Your task to perform on an android device: Go to calendar. Show me events next week Image 0: 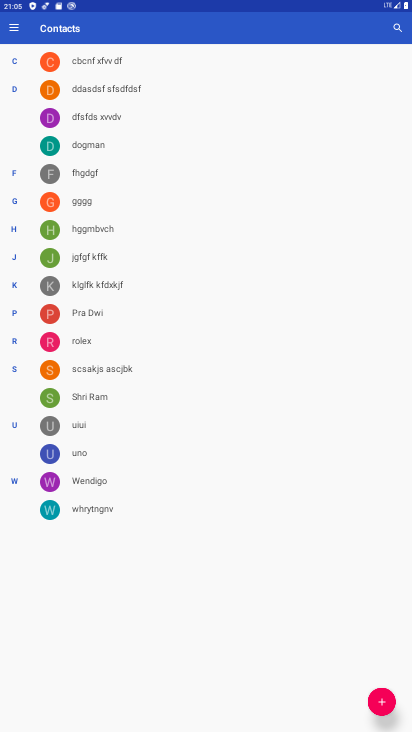
Step 0: press home button
Your task to perform on an android device: Go to calendar. Show me events next week Image 1: 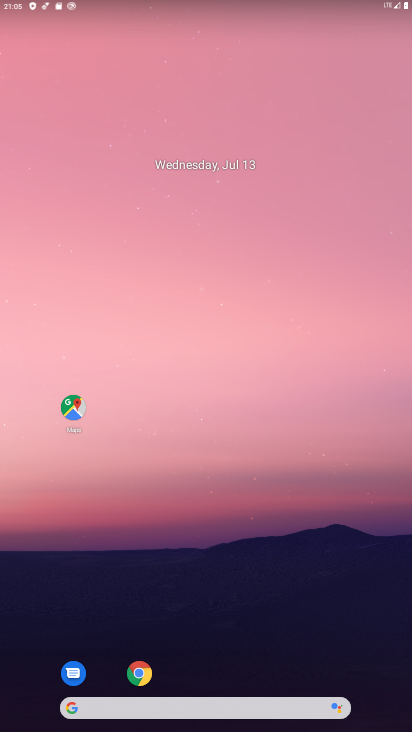
Step 1: drag from (234, 647) to (255, 128)
Your task to perform on an android device: Go to calendar. Show me events next week Image 2: 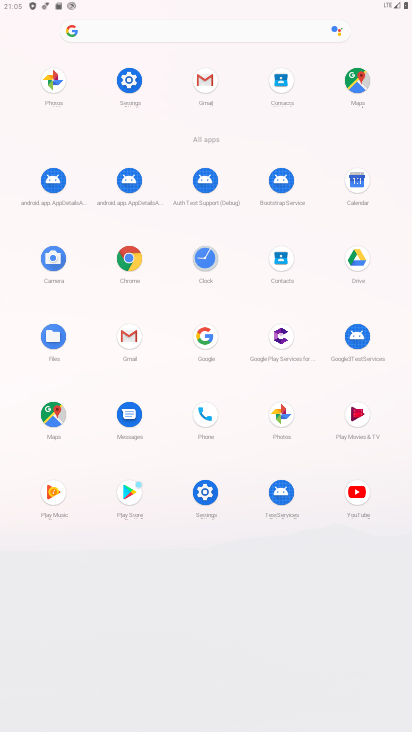
Step 2: click (354, 177)
Your task to perform on an android device: Go to calendar. Show me events next week Image 3: 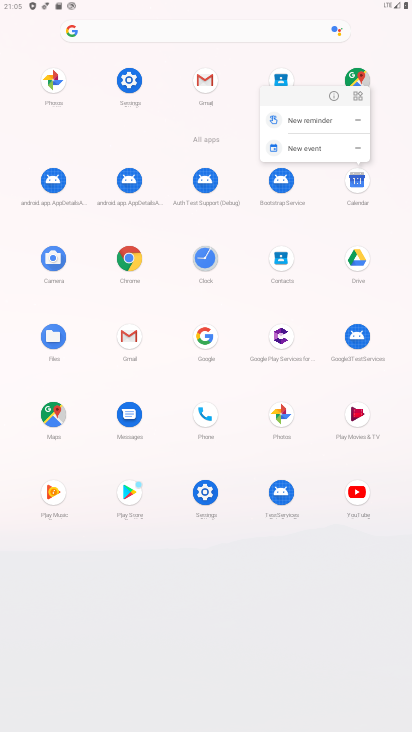
Step 3: click (331, 98)
Your task to perform on an android device: Go to calendar. Show me events next week Image 4: 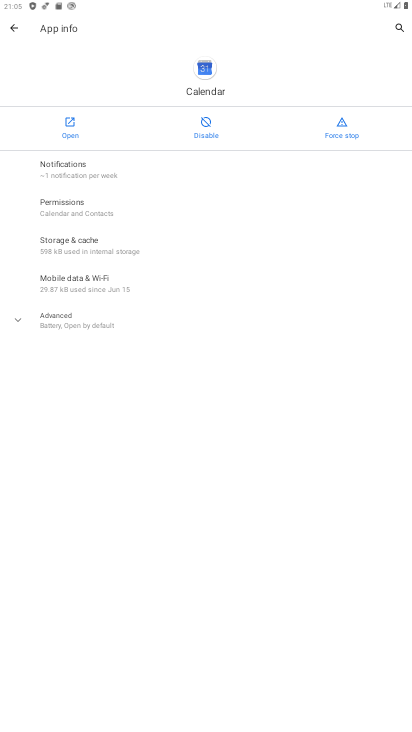
Step 4: click (78, 133)
Your task to perform on an android device: Go to calendar. Show me events next week Image 5: 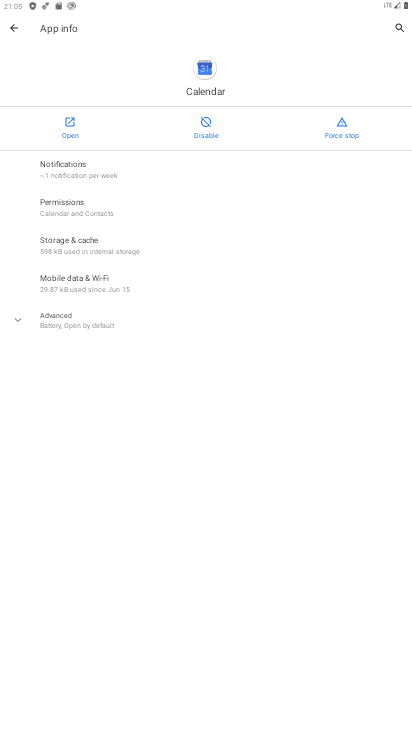
Step 5: click (78, 133)
Your task to perform on an android device: Go to calendar. Show me events next week Image 6: 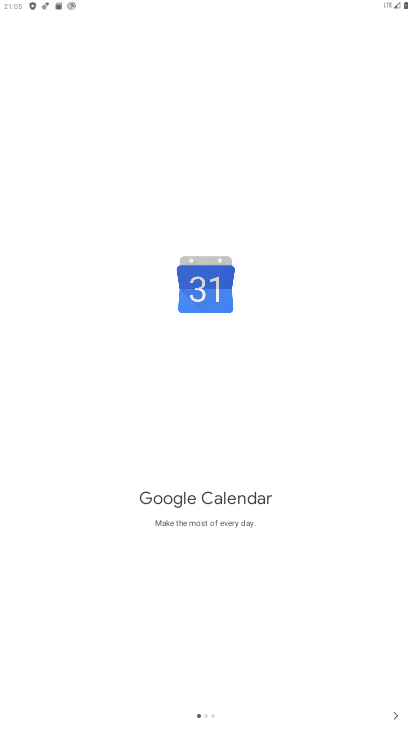
Step 6: drag from (199, 511) to (180, 239)
Your task to perform on an android device: Go to calendar. Show me events next week Image 7: 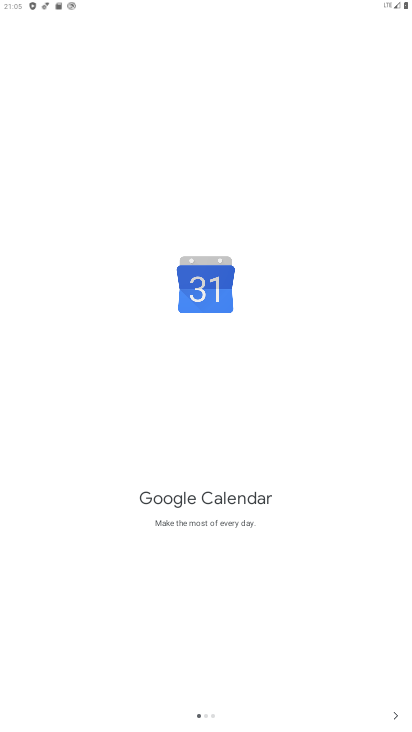
Step 7: click (396, 713)
Your task to perform on an android device: Go to calendar. Show me events next week Image 8: 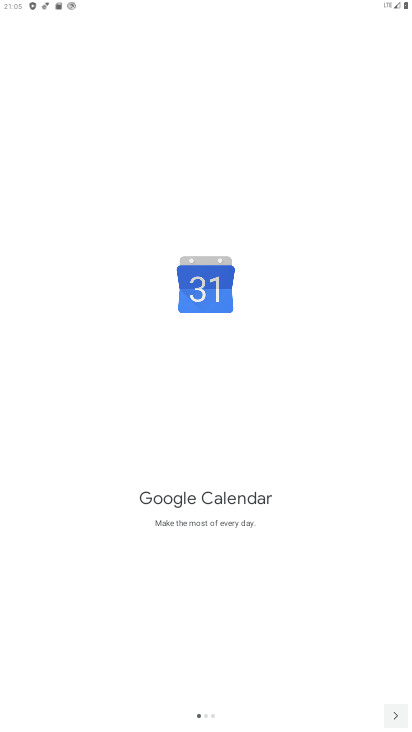
Step 8: click (394, 710)
Your task to perform on an android device: Go to calendar. Show me events next week Image 9: 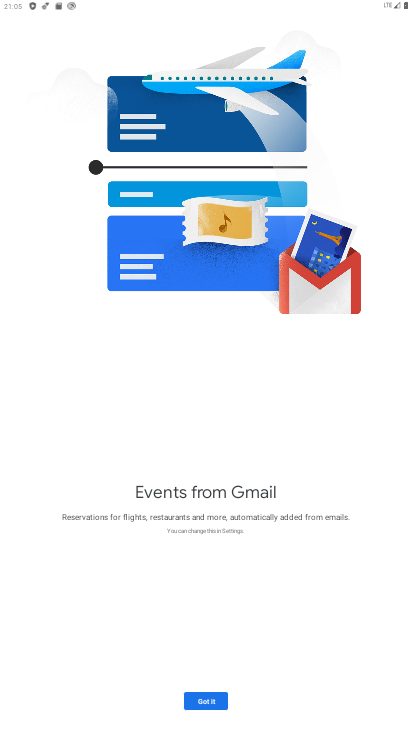
Step 9: click (397, 710)
Your task to perform on an android device: Go to calendar. Show me events next week Image 10: 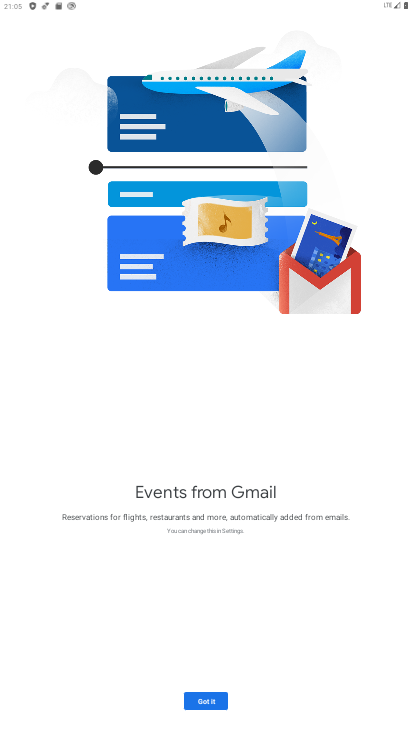
Step 10: click (205, 700)
Your task to perform on an android device: Go to calendar. Show me events next week Image 11: 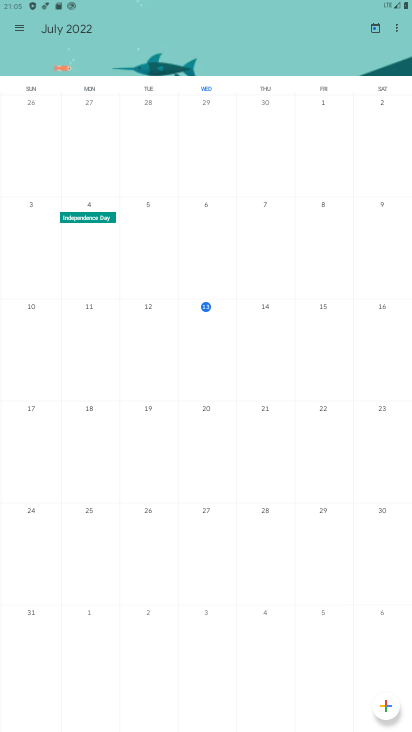
Step 11: drag from (172, 449) to (172, 267)
Your task to perform on an android device: Go to calendar. Show me events next week Image 12: 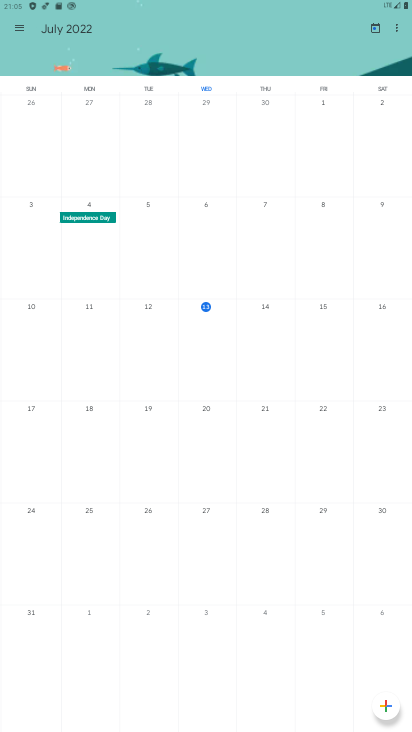
Step 12: click (72, 22)
Your task to perform on an android device: Go to calendar. Show me events next week Image 13: 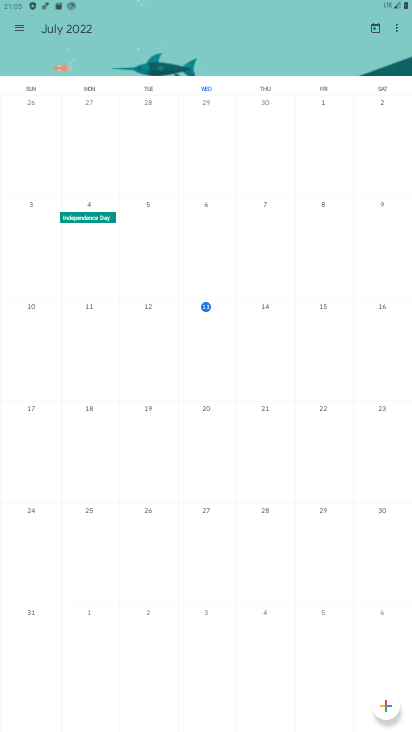
Step 13: click (375, 26)
Your task to perform on an android device: Go to calendar. Show me events next week Image 14: 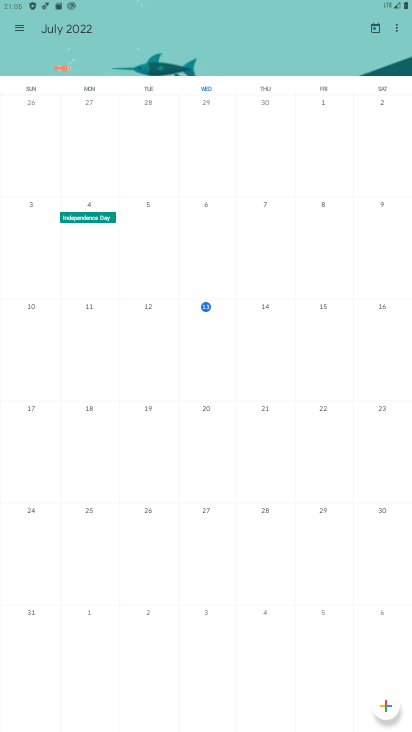
Step 14: click (265, 412)
Your task to perform on an android device: Go to calendar. Show me events next week Image 15: 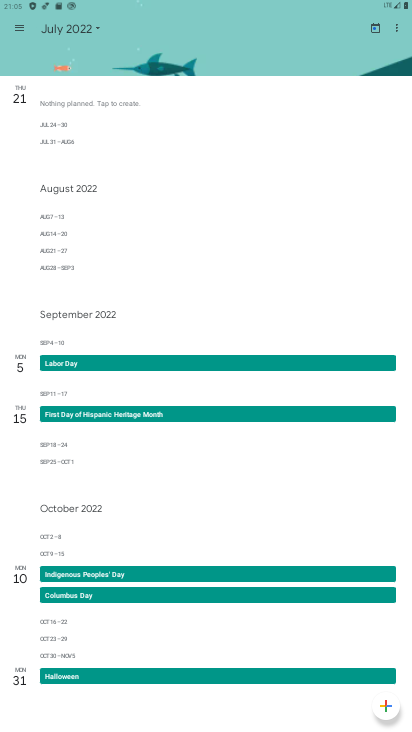
Step 15: task complete